Your task to perform on an android device: Search for usb-c to usb-a on walmart.com, select the first entry, and add it to the cart. Image 0: 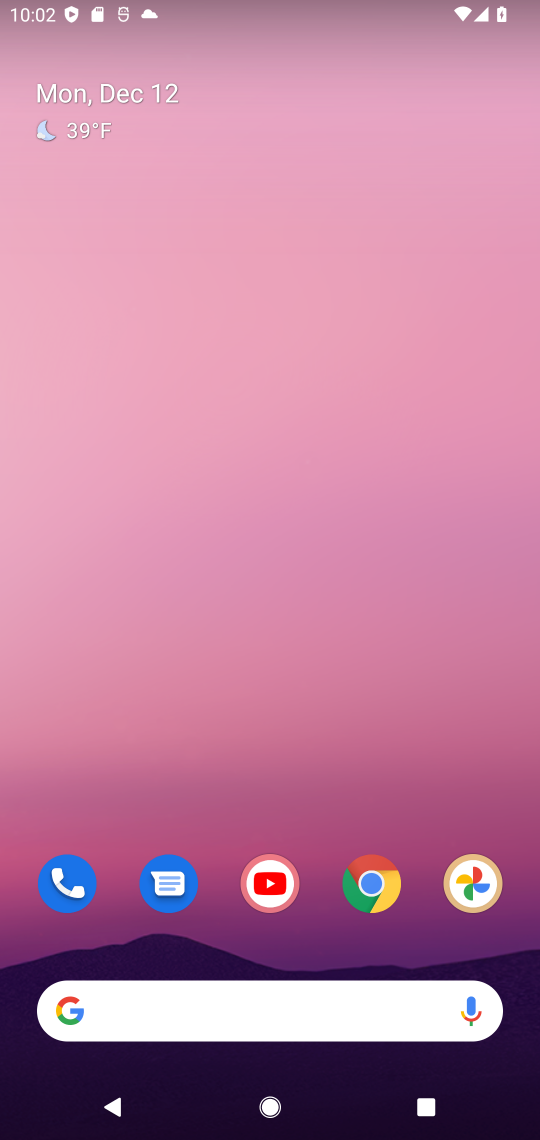
Step 0: drag from (273, 825) to (271, 340)
Your task to perform on an android device: Search for usb-c to usb-a on walmart.com, select the first entry, and add it to the cart. Image 1: 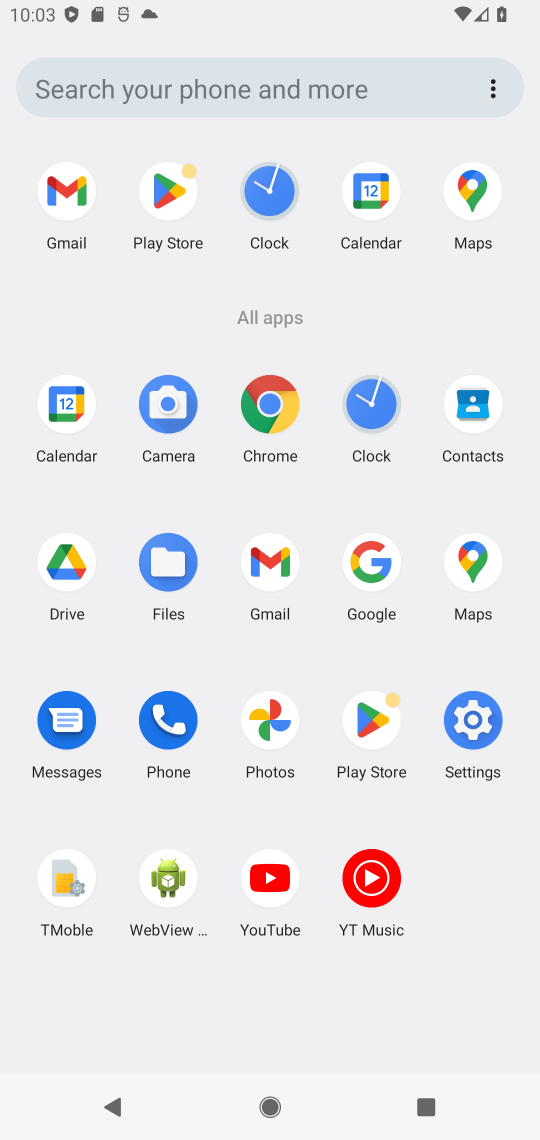
Step 1: click (365, 589)
Your task to perform on an android device: Search for usb-c to usb-a on walmart.com, select the first entry, and add it to the cart. Image 2: 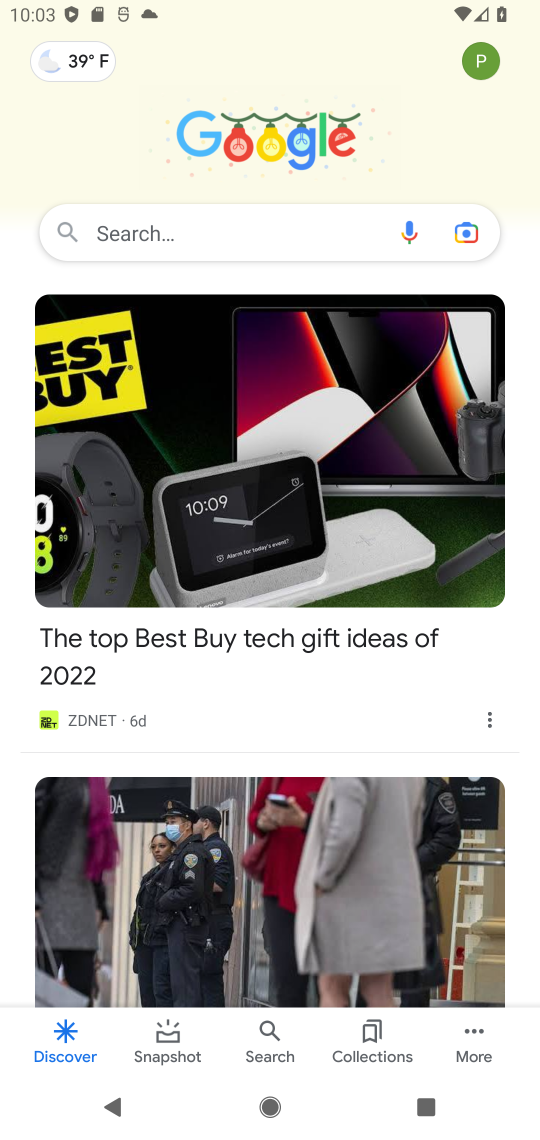
Step 2: click (175, 247)
Your task to perform on an android device: Search for usb-c to usb-a on walmart.com, select the first entry, and add it to the cart. Image 3: 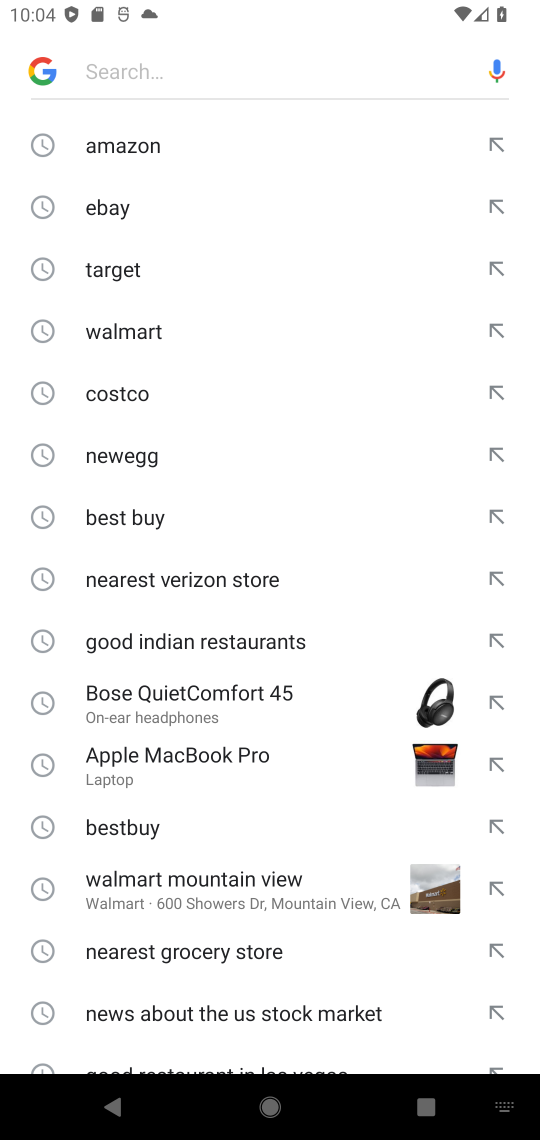
Step 3: click (150, 347)
Your task to perform on an android device: Search for usb-c to usb-a on walmart.com, select the first entry, and add it to the cart. Image 4: 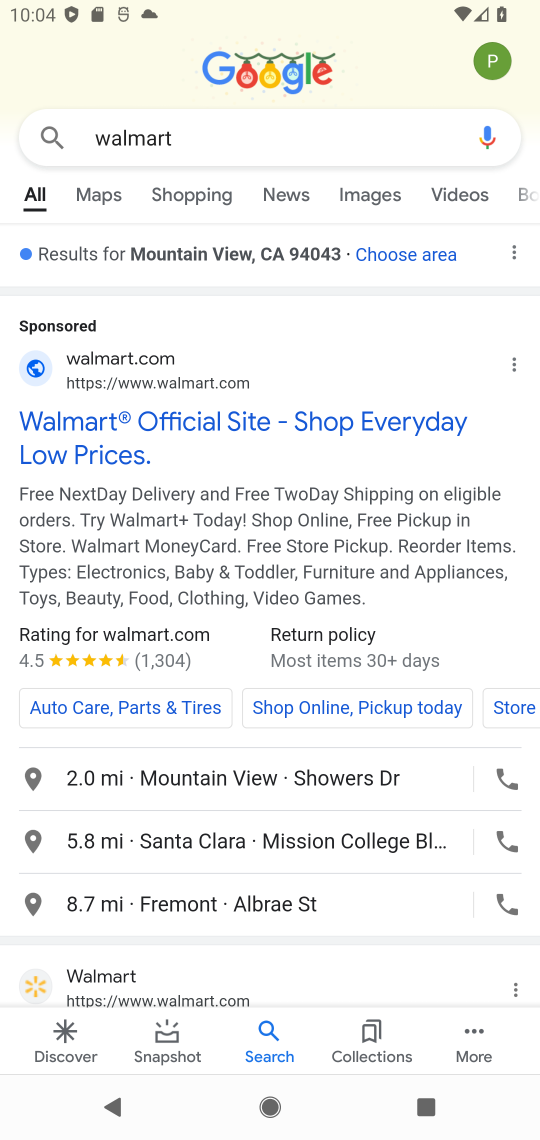
Step 4: drag from (181, 653) to (181, 312)
Your task to perform on an android device: Search for usb-c to usb-a on walmart.com, select the first entry, and add it to the cart. Image 5: 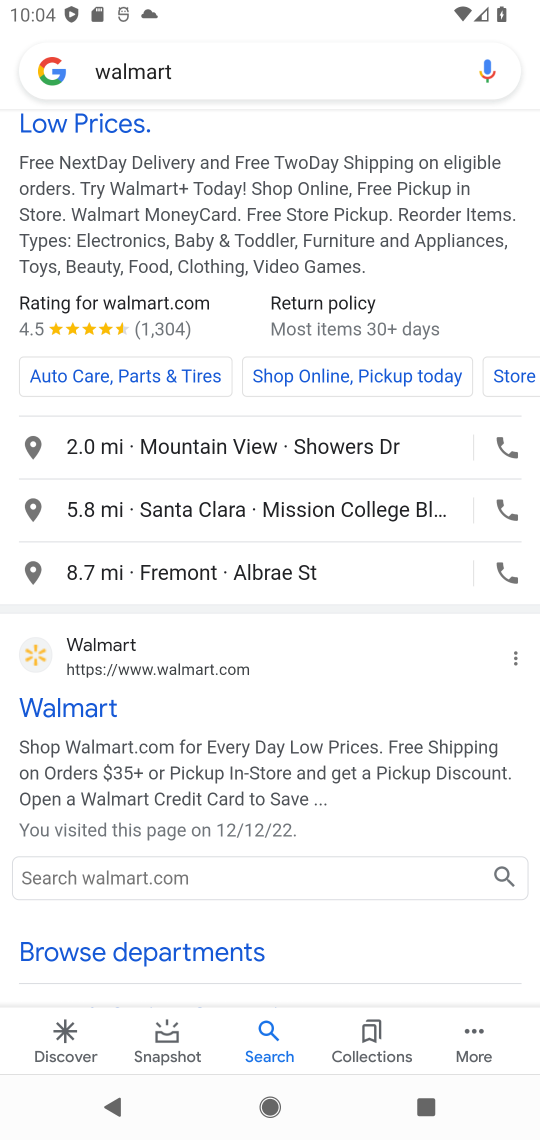
Step 5: click (83, 709)
Your task to perform on an android device: Search for usb-c to usb-a on walmart.com, select the first entry, and add it to the cart. Image 6: 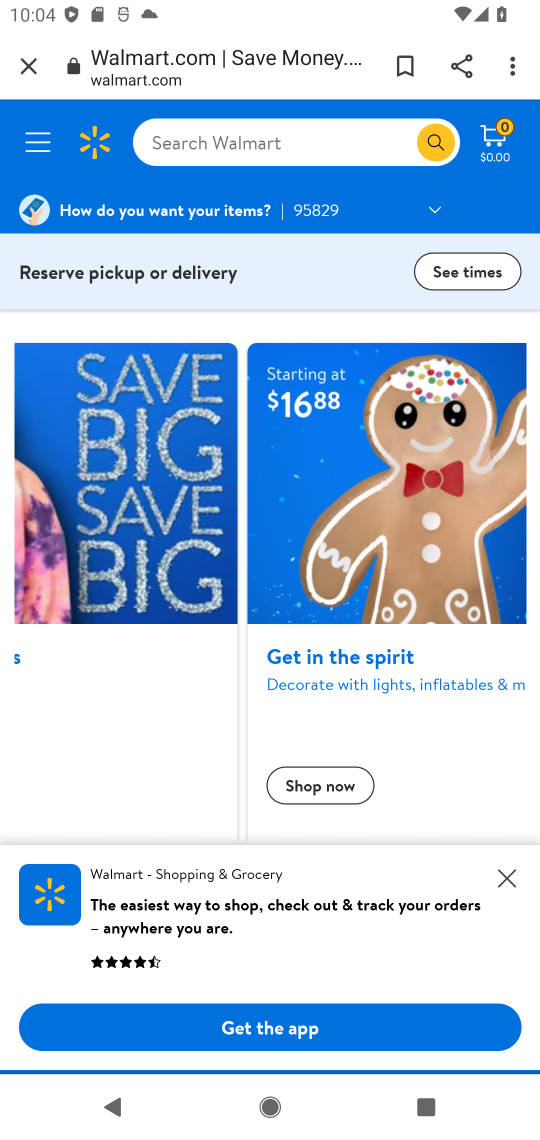
Step 6: click (283, 128)
Your task to perform on an android device: Search for usb-c to usb-a on walmart.com, select the first entry, and add it to the cart. Image 7: 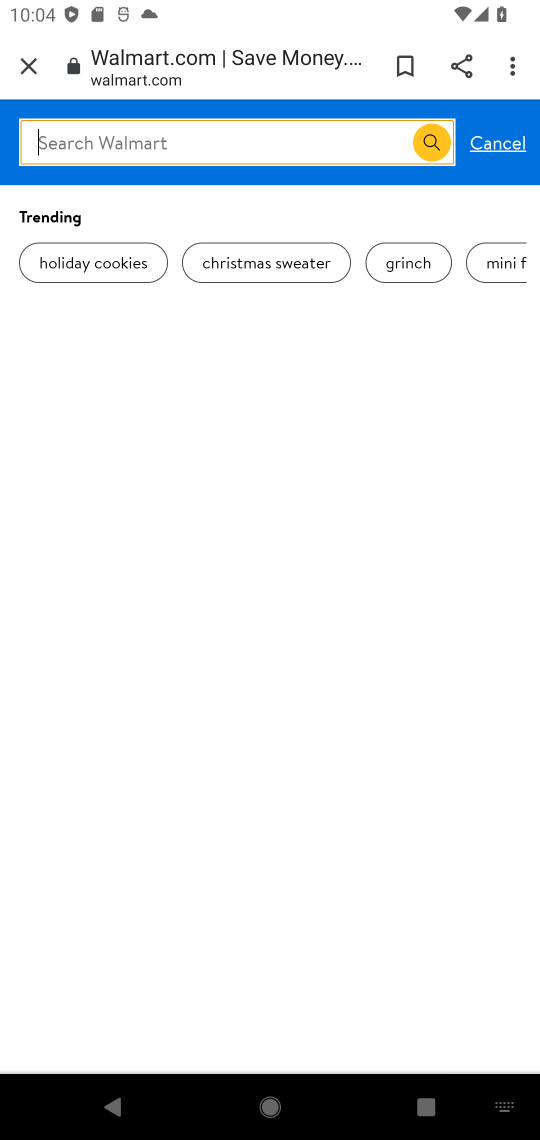
Step 7: type " usb-c to usb-a"
Your task to perform on an android device: Search for usb-c to usb-a on walmart.com, select the first entry, and add it to the cart. Image 8: 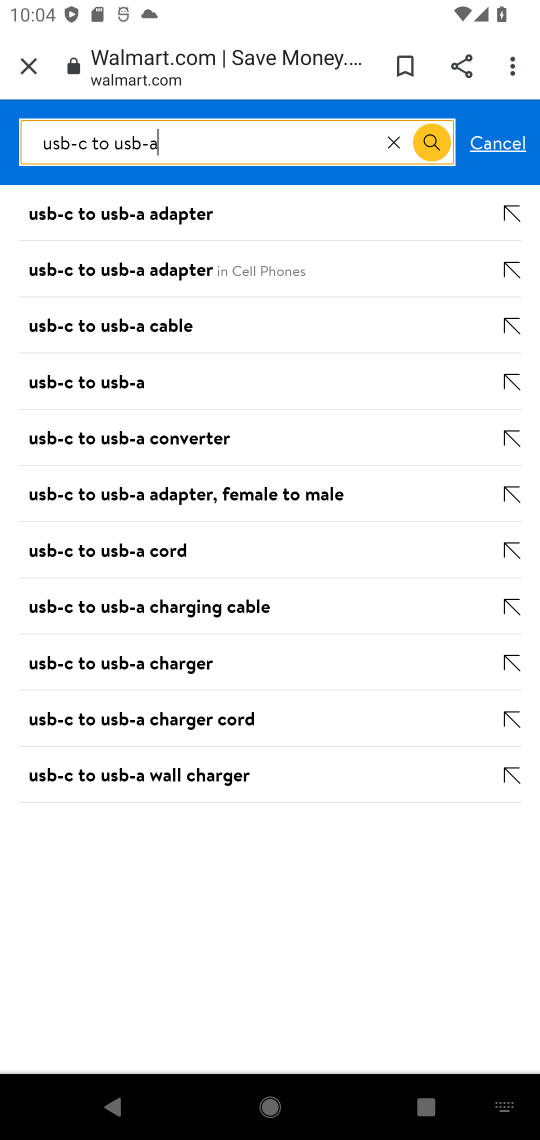
Step 8: click (117, 211)
Your task to perform on an android device: Search for usb-c to usb-a on walmart.com, select the first entry, and add it to the cart. Image 9: 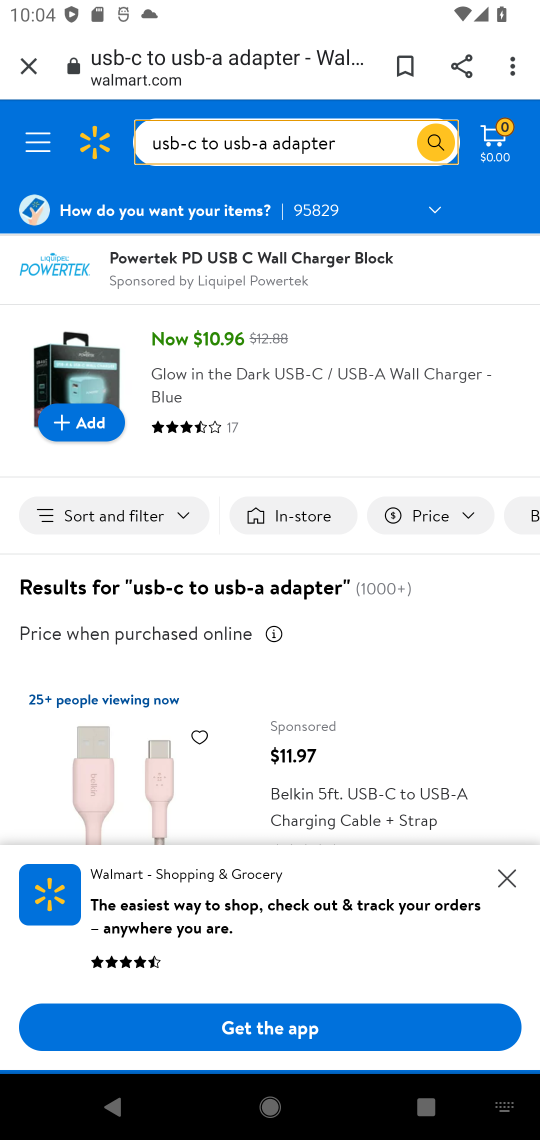
Step 9: click (503, 879)
Your task to perform on an android device: Search for usb-c to usb-a on walmart.com, select the first entry, and add it to the cart. Image 10: 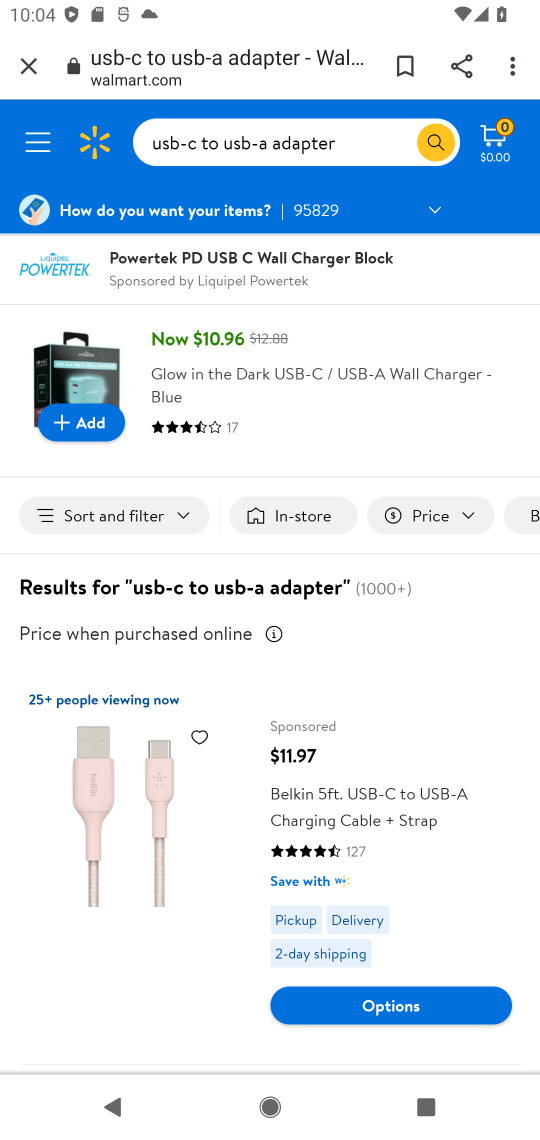
Step 10: click (383, 1001)
Your task to perform on an android device: Search for usb-c to usb-a on walmart.com, select the first entry, and add it to the cart. Image 11: 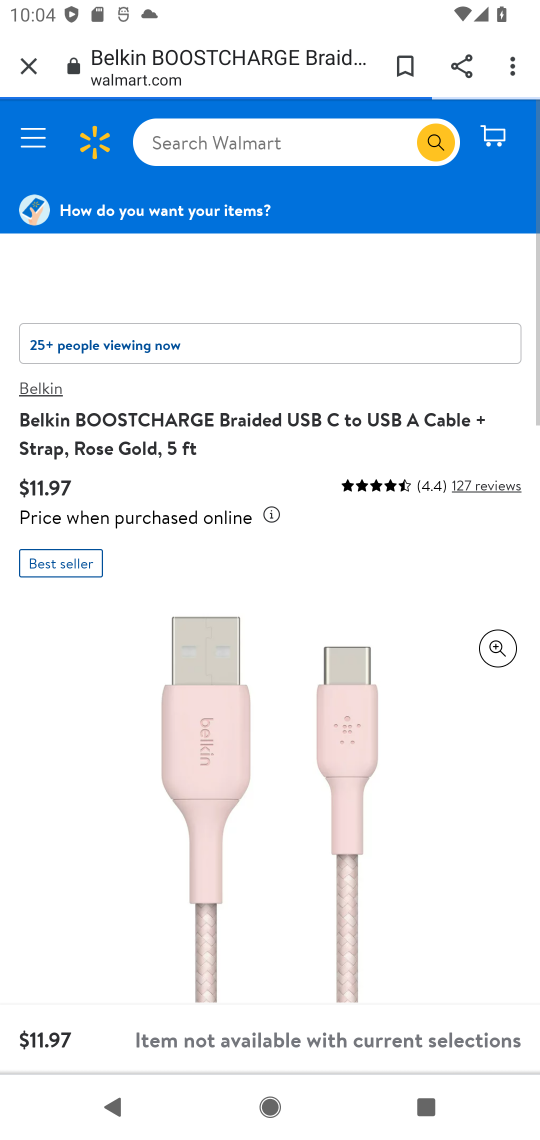
Step 11: click (371, 1001)
Your task to perform on an android device: Search for usb-c to usb-a on walmart.com, select the first entry, and add it to the cart. Image 12: 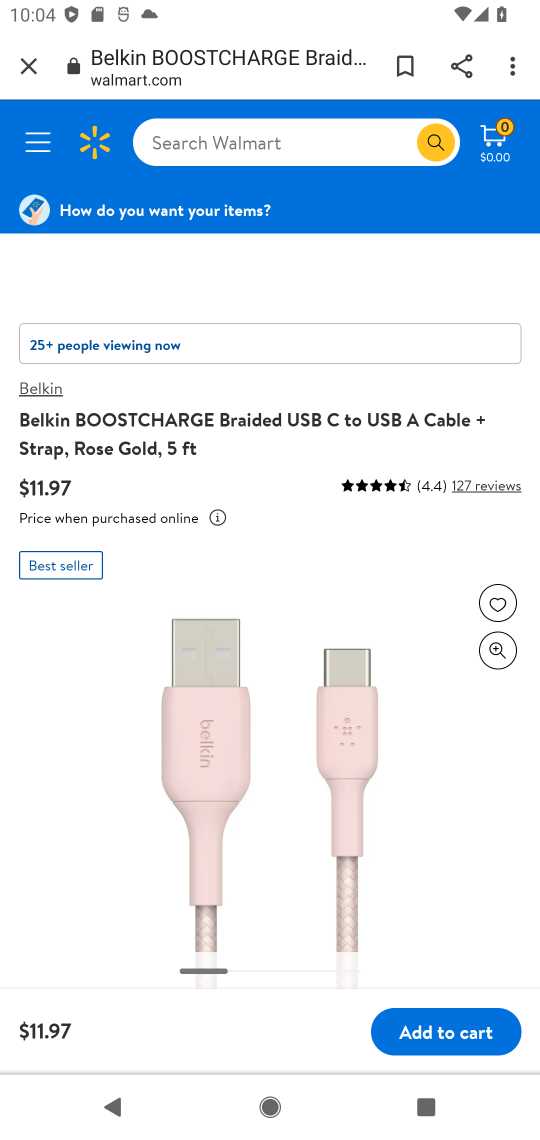
Step 12: click (371, 1001)
Your task to perform on an android device: Search for usb-c to usb-a on walmart.com, select the first entry, and add it to the cart. Image 13: 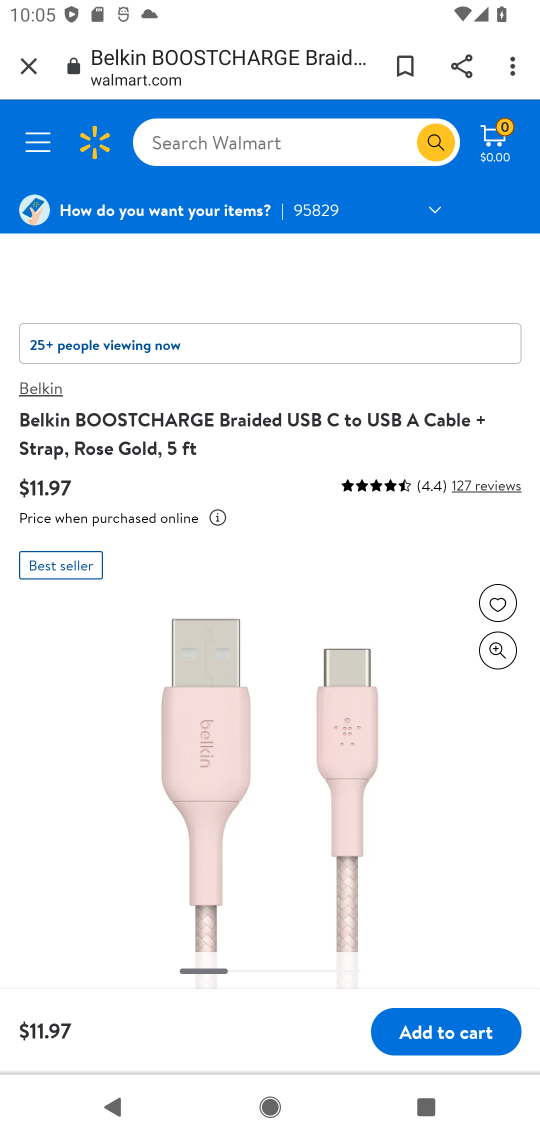
Step 13: click (410, 1038)
Your task to perform on an android device: Search for usb-c to usb-a on walmart.com, select the first entry, and add it to the cart. Image 14: 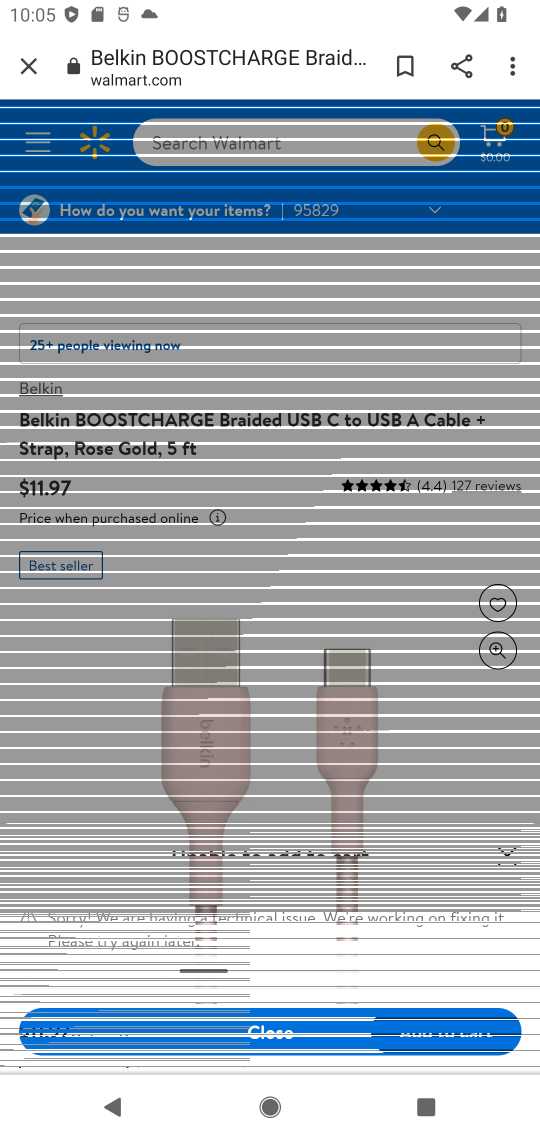
Step 14: task complete